Your task to perform on an android device: toggle data saver in the chrome app Image 0: 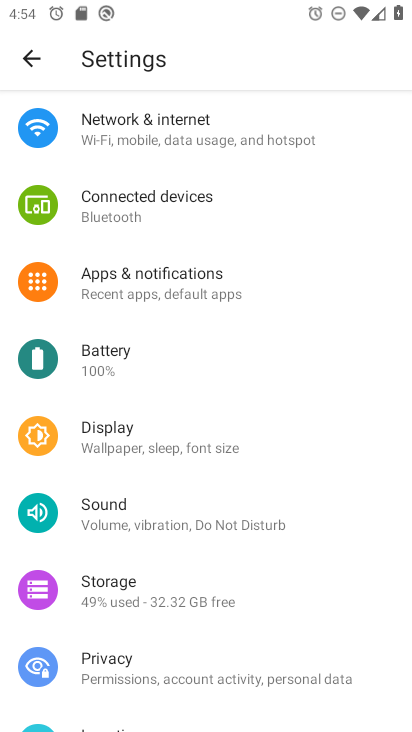
Step 0: drag from (214, 185) to (216, 401)
Your task to perform on an android device: toggle data saver in the chrome app Image 1: 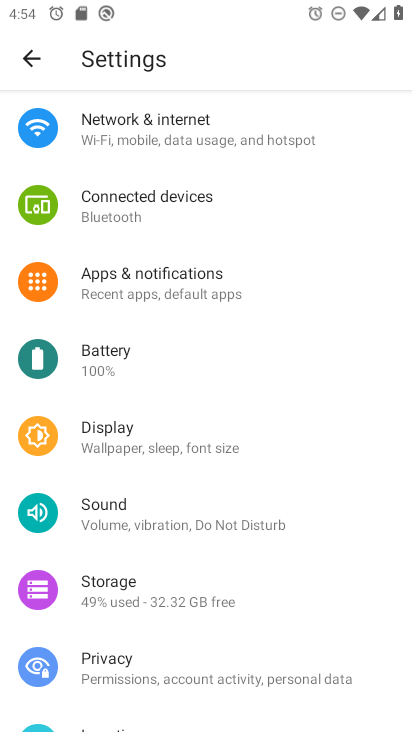
Step 1: press back button
Your task to perform on an android device: toggle data saver in the chrome app Image 2: 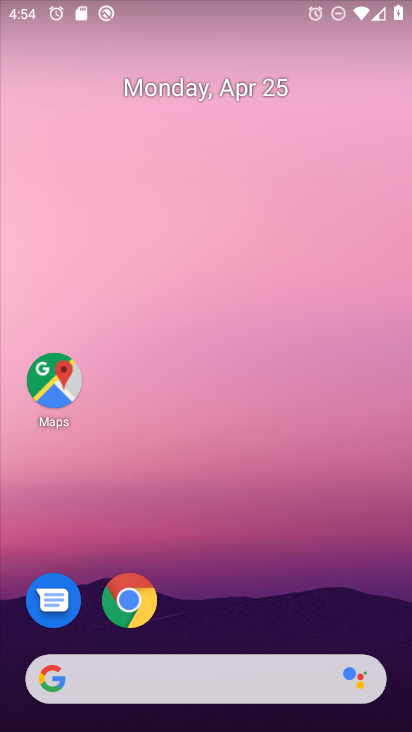
Step 2: drag from (209, 534) to (164, 56)
Your task to perform on an android device: toggle data saver in the chrome app Image 3: 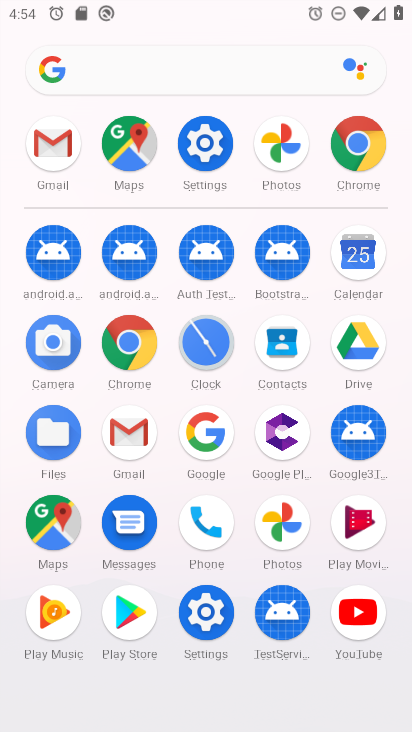
Step 3: click (132, 340)
Your task to perform on an android device: toggle data saver in the chrome app Image 4: 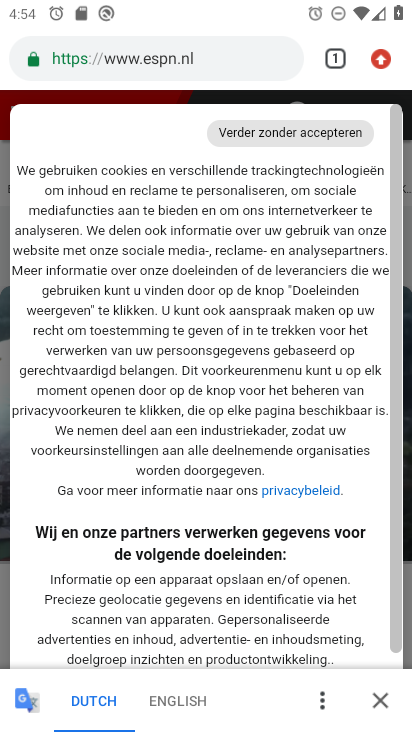
Step 4: drag from (379, 58) to (180, 627)
Your task to perform on an android device: toggle data saver in the chrome app Image 5: 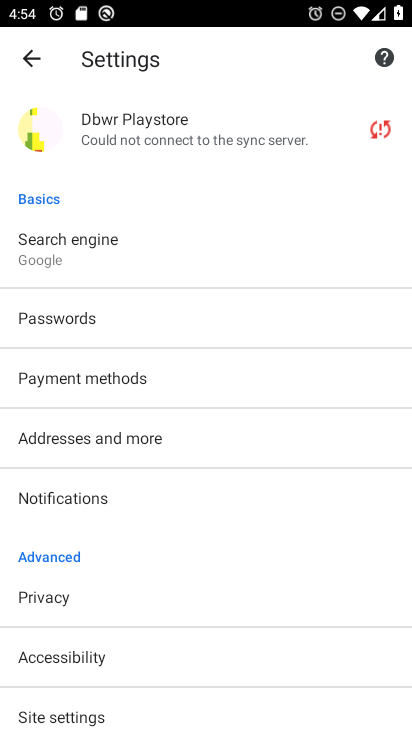
Step 5: drag from (207, 629) to (258, 249)
Your task to perform on an android device: toggle data saver in the chrome app Image 6: 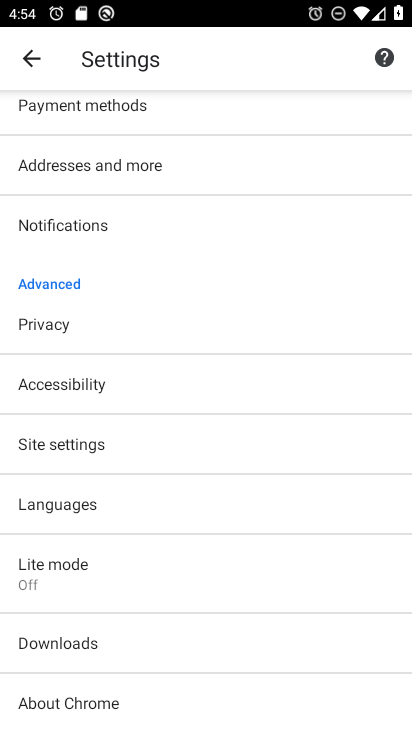
Step 6: click (131, 556)
Your task to perform on an android device: toggle data saver in the chrome app Image 7: 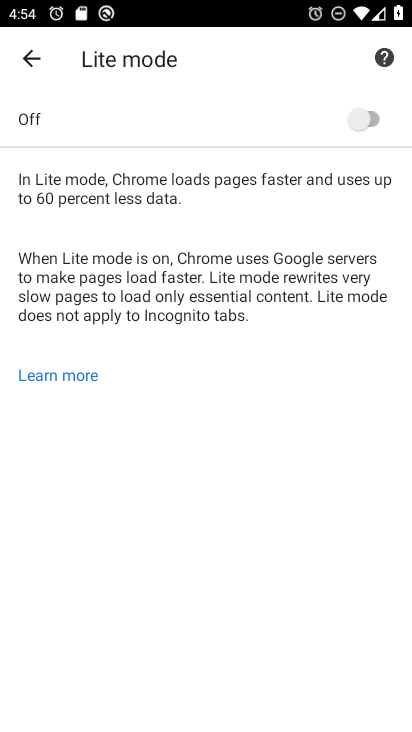
Step 7: click (362, 121)
Your task to perform on an android device: toggle data saver in the chrome app Image 8: 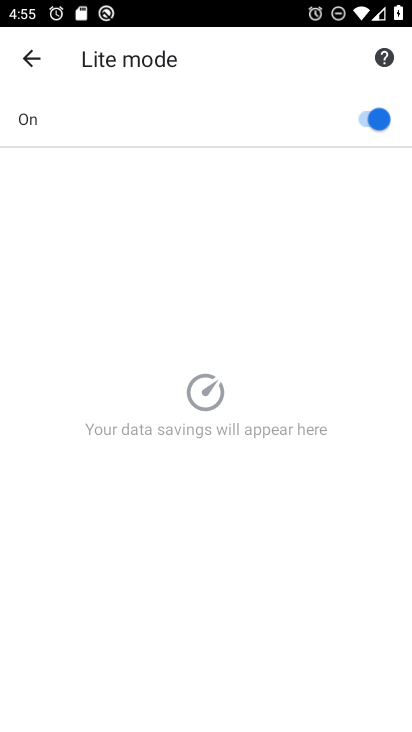
Step 8: task complete